Your task to perform on an android device: Go to location settings Image 0: 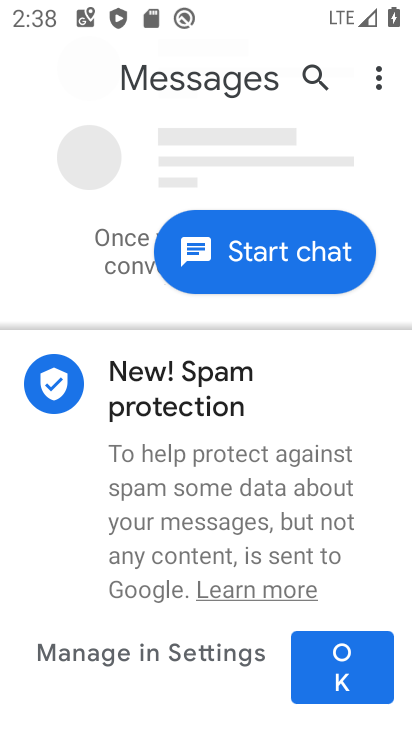
Step 0: press home button
Your task to perform on an android device: Go to location settings Image 1: 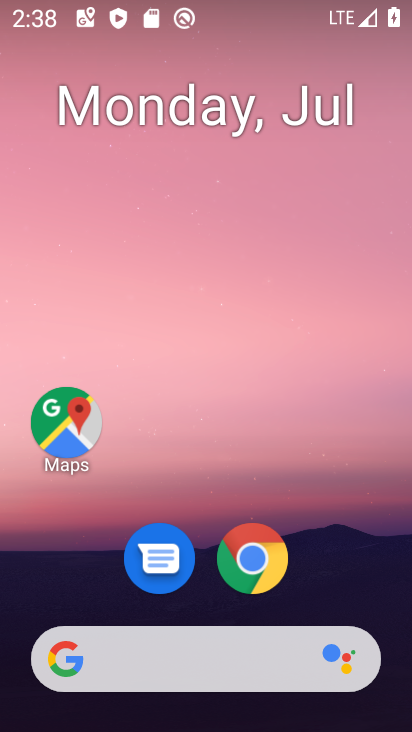
Step 1: drag from (390, 587) to (372, 133)
Your task to perform on an android device: Go to location settings Image 2: 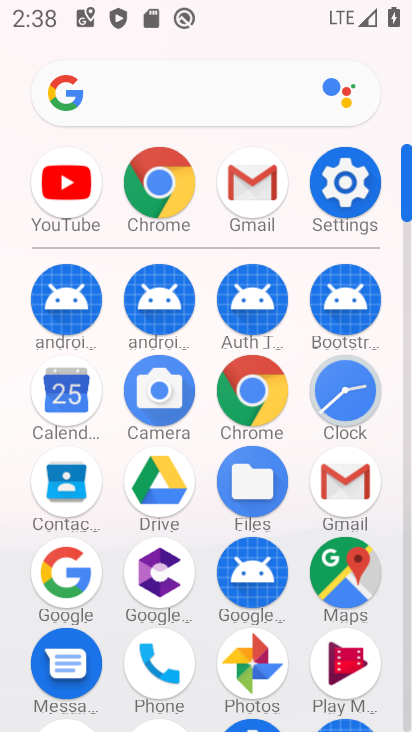
Step 2: click (349, 182)
Your task to perform on an android device: Go to location settings Image 3: 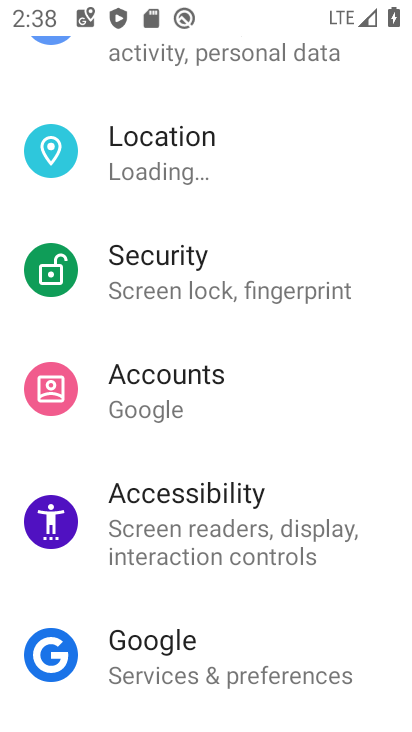
Step 3: drag from (371, 156) to (367, 259)
Your task to perform on an android device: Go to location settings Image 4: 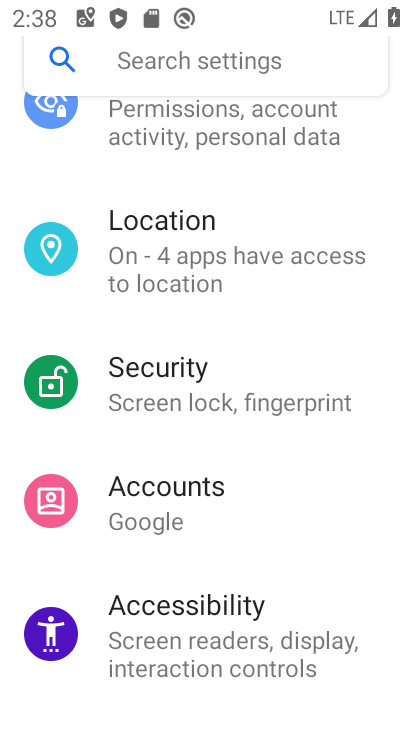
Step 4: drag from (369, 137) to (370, 234)
Your task to perform on an android device: Go to location settings Image 5: 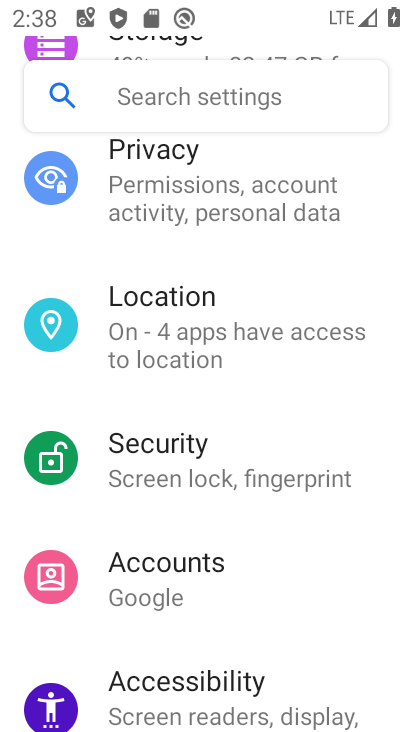
Step 5: drag from (372, 153) to (374, 277)
Your task to perform on an android device: Go to location settings Image 6: 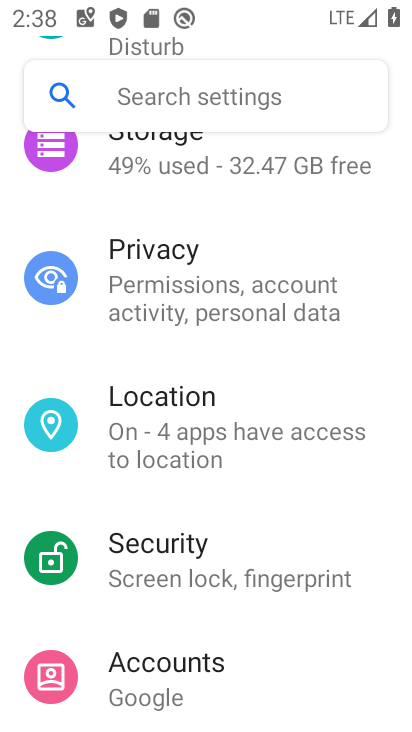
Step 6: drag from (381, 180) to (381, 296)
Your task to perform on an android device: Go to location settings Image 7: 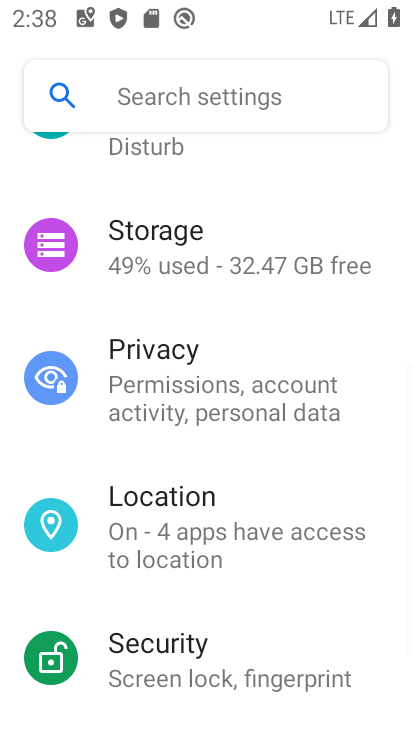
Step 7: drag from (386, 170) to (385, 295)
Your task to perform on an android device: Go to location settings Image 8: 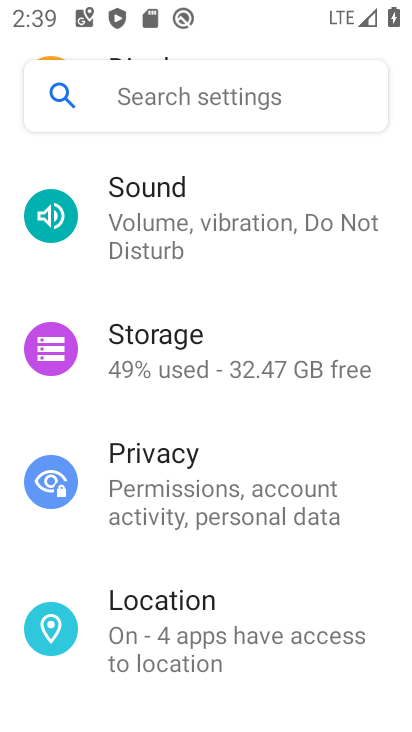
Step 8: drag from (381, 169) to (376, 284)
Your task to perform on an android device: Go to location settings Image 9: 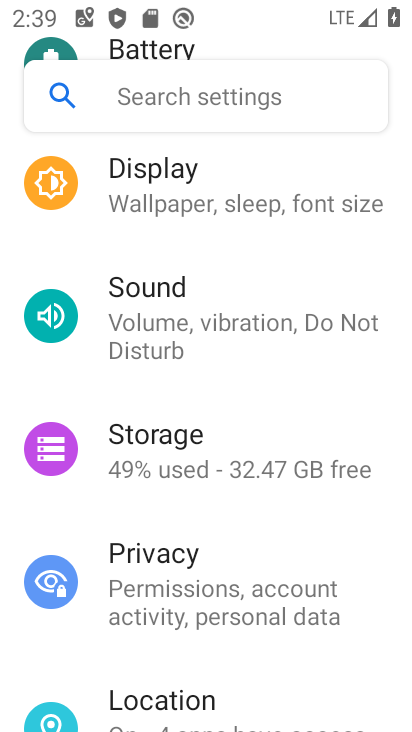
Step 9: drag from (377, 163) to (378, 323)
Your task to perform on an android device: Go to location settings Image 10: 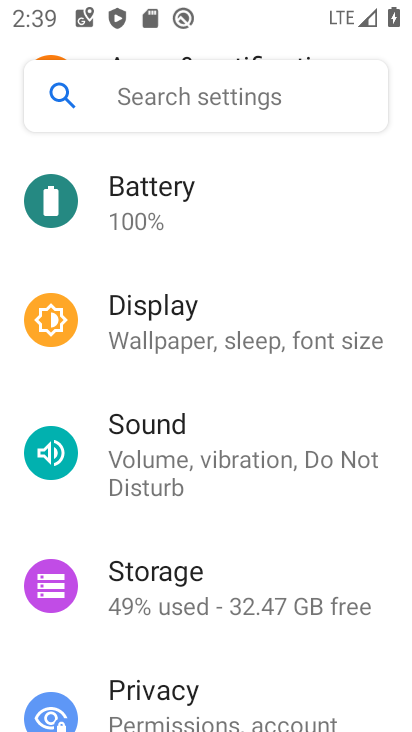
Step 10: drag from (370, 185) to (372, 327)
Your task to perform on an android device: Go to location settings Image 11: 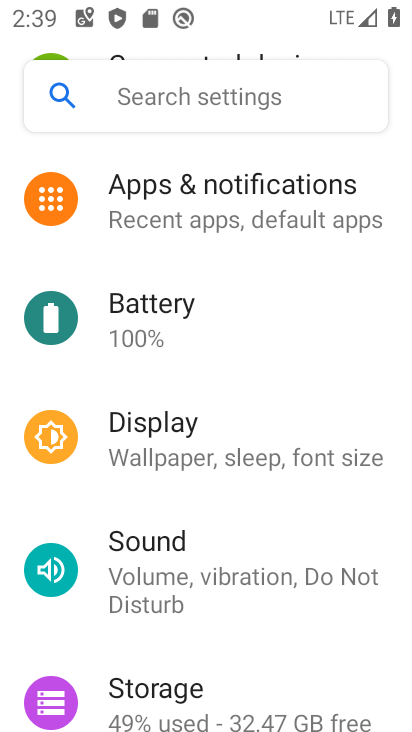
Step 11: drag from (375, 171) to (376, 309)
Your task to perform on an android device: Go to location settings Image 12: 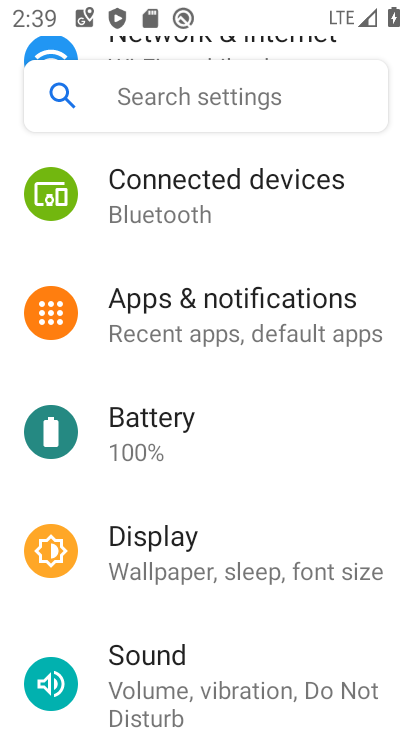
Step 12: drag from (368, 241) to (368, 381)
Your task to perform on an android device: Go to location settings Image 13: 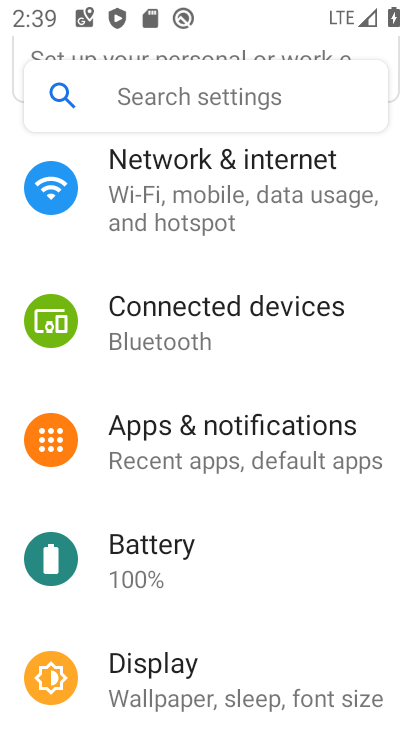
Step 13: drag from (353, 525) to (366, 406)
Your task to perform on an android device: Go to location settings Image 14: 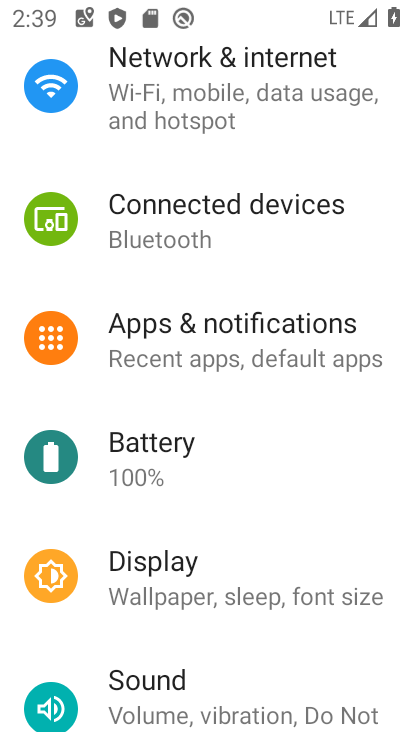
Step 14: drag from (334, 513) to (334, 394)
Your task to perform on an android device: Go to location settings Image 15: 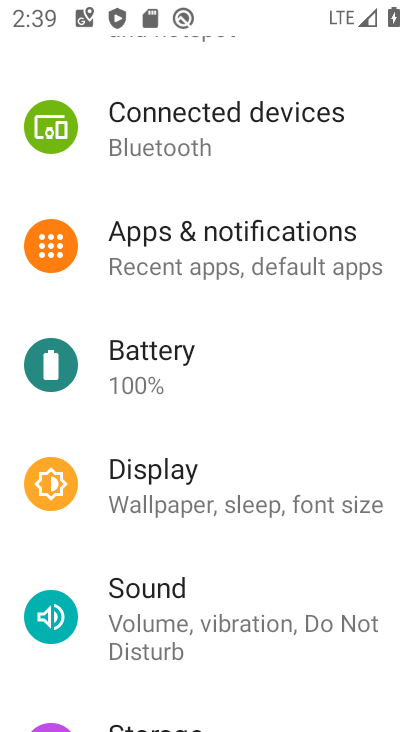
Step 15: drag from (313, 544) to (311, 364)
Your task to perform on an android device: Go to location settings Image 16: 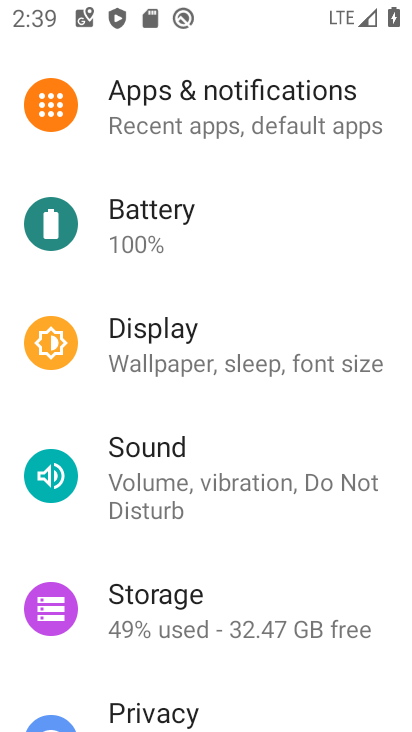
Step 16: drag from (328, 532) to (338, 364)
Your task to perform on an android device: Go to location settings Image 17: 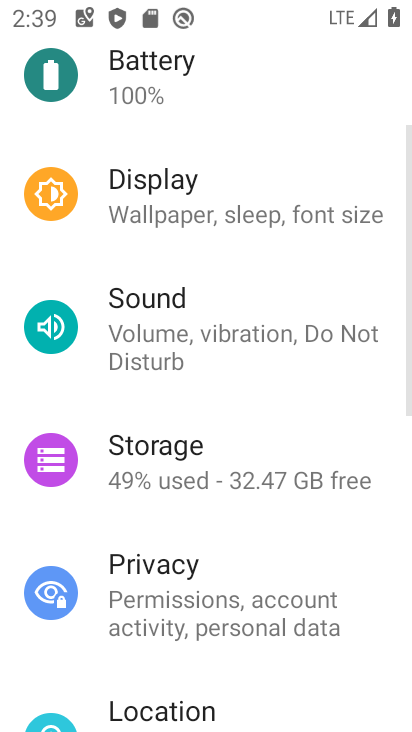
Step 17: drag from (348, 452) to (349, 269)
Your task to perform on an android device: Go to location settings Image 18: 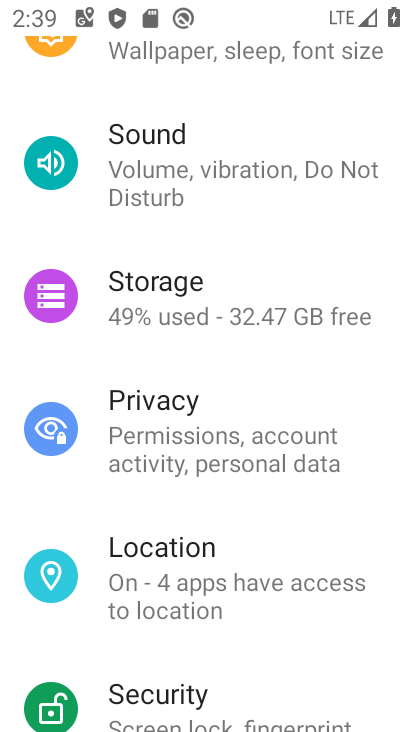
Step 18: drag from (339, 399) to (344, 264)
Your task to perform on an android device: Go to location settings Image 19: 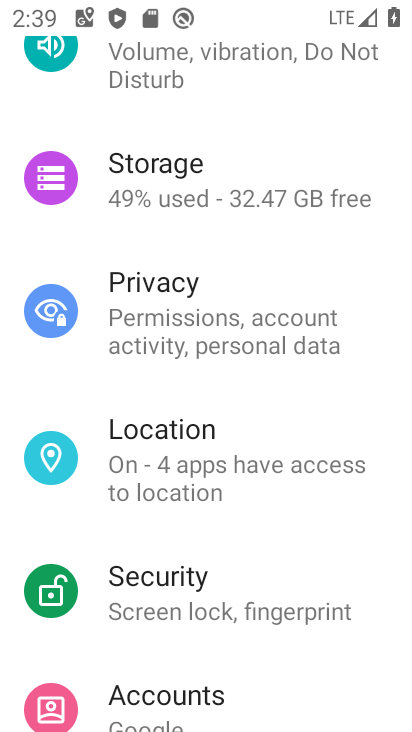
Step 19: click (332, 453)
Your task to perform on an android device: Go to location settings Image 20: 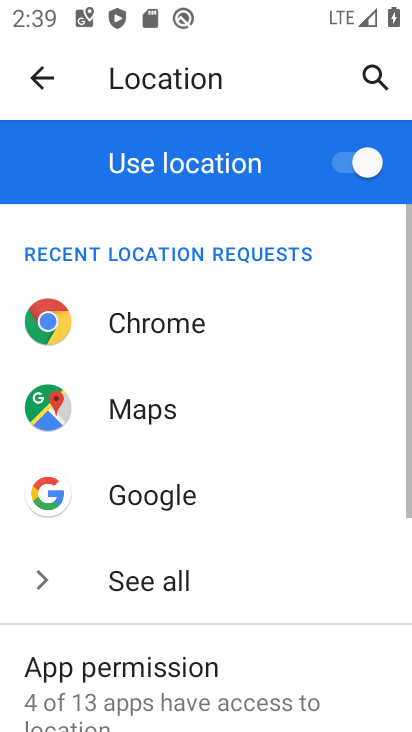
Step 20: task complete